Your task to perform on an android device: turn pop-ups off in chrome Image 0: 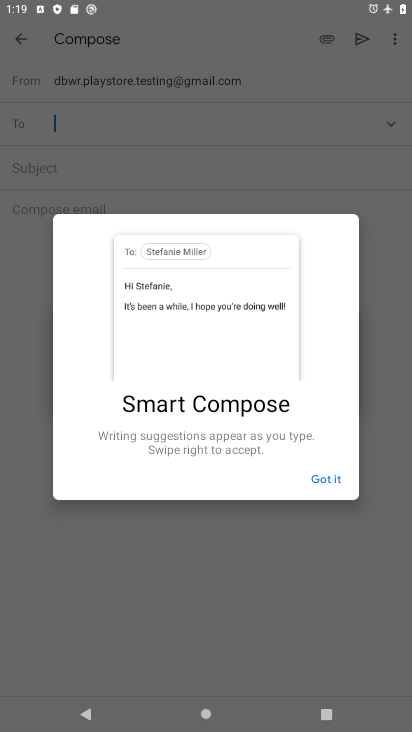
Step 0: press home button
Your task to perform on an android device: turn pop-ups off in chrome Image 1: 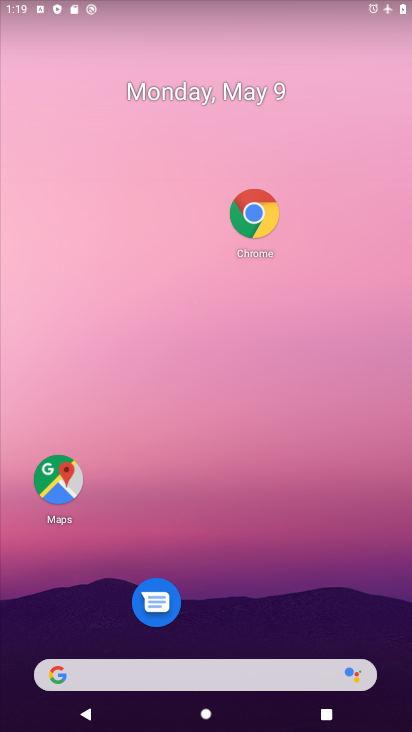
Step 1: click (266, 238)
Your task to perform on an android device: turn pop-ups off in chrome Image 2: 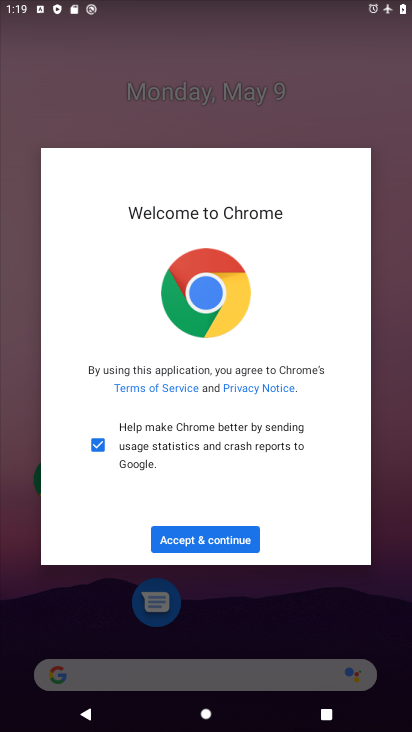
Step 2: click (214, 535)
Your task to perform on an android device: turn pop-ups off in chrome Image 3: 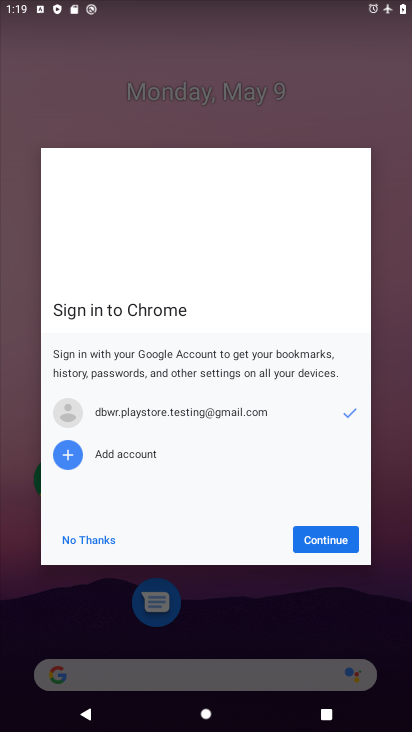
Step 3: click (299, 542)
Your task to perform on an android device: turn pop-ups off in chrome Image 4: 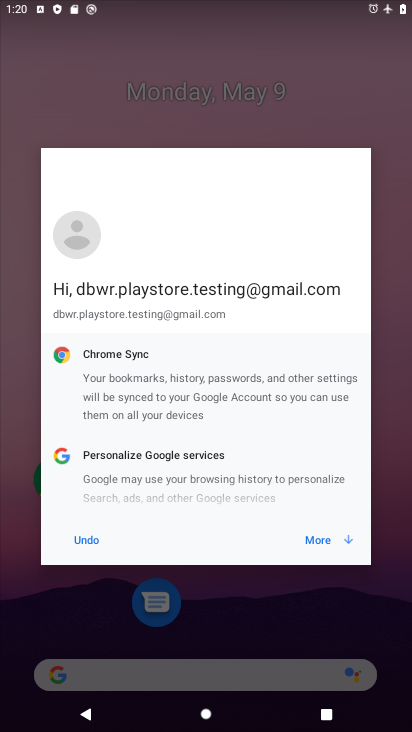
Step 4: click (299, 542)
Your task to perform on an android device: turn pop-ups off in chrome Image 5: 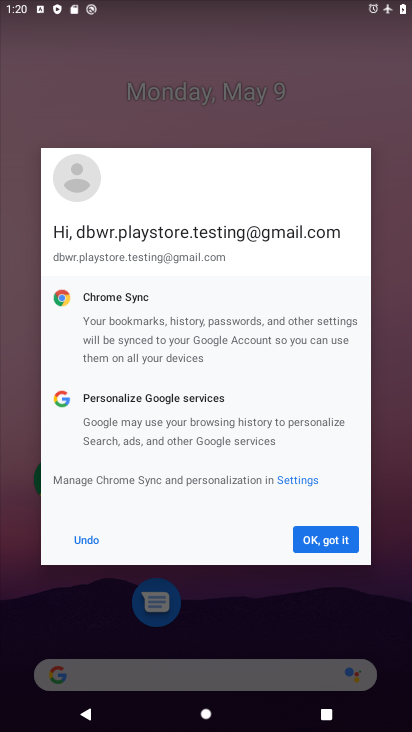
Step 5: click (299, 542)
Your task to perform on an android device: turn pop-ups off in chrome Image 6: 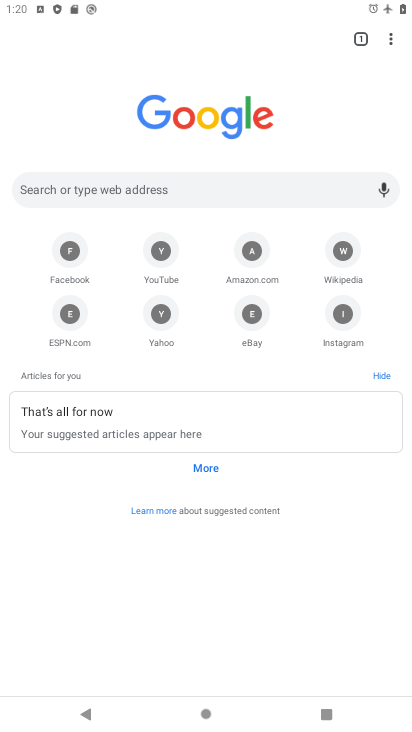
Step 6: click (391, 42)
Your task to perform on an android device: turn pop-ups off in chrome Image 7: 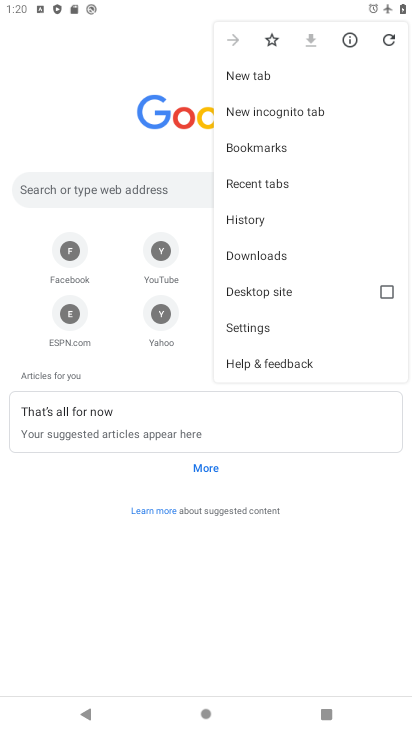
Step 7: click (272, 322)
Your task to perform on an android device: turn pop-ups off in chrome Image 8: 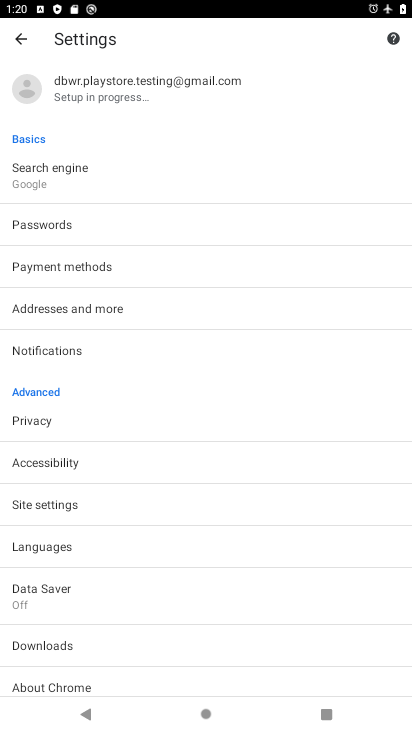
Step 8: click (181, 518)
Your task to perform on an android device: turn pop-ups off in chrome Image 9: 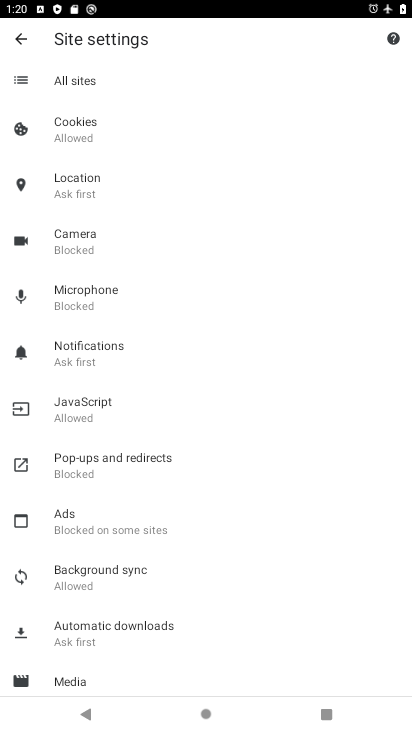
Step 9: click (159, 480)
Your task to perform on an android device: turn pop-ups off in chrome Image 10: 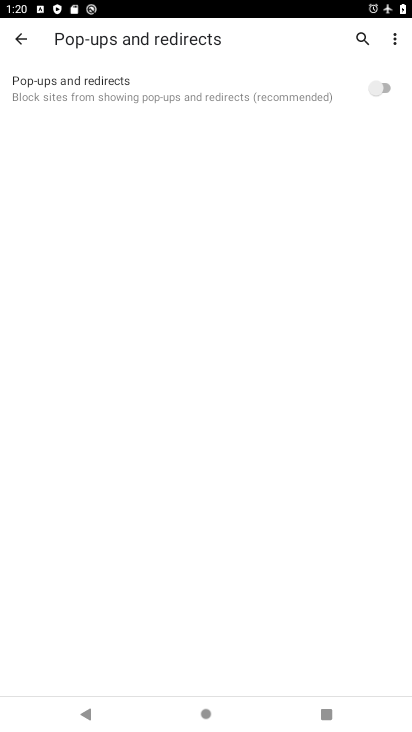
Step 10: task complete